Your task to perform on an android device: check the backup settings in the google photos Image 0: 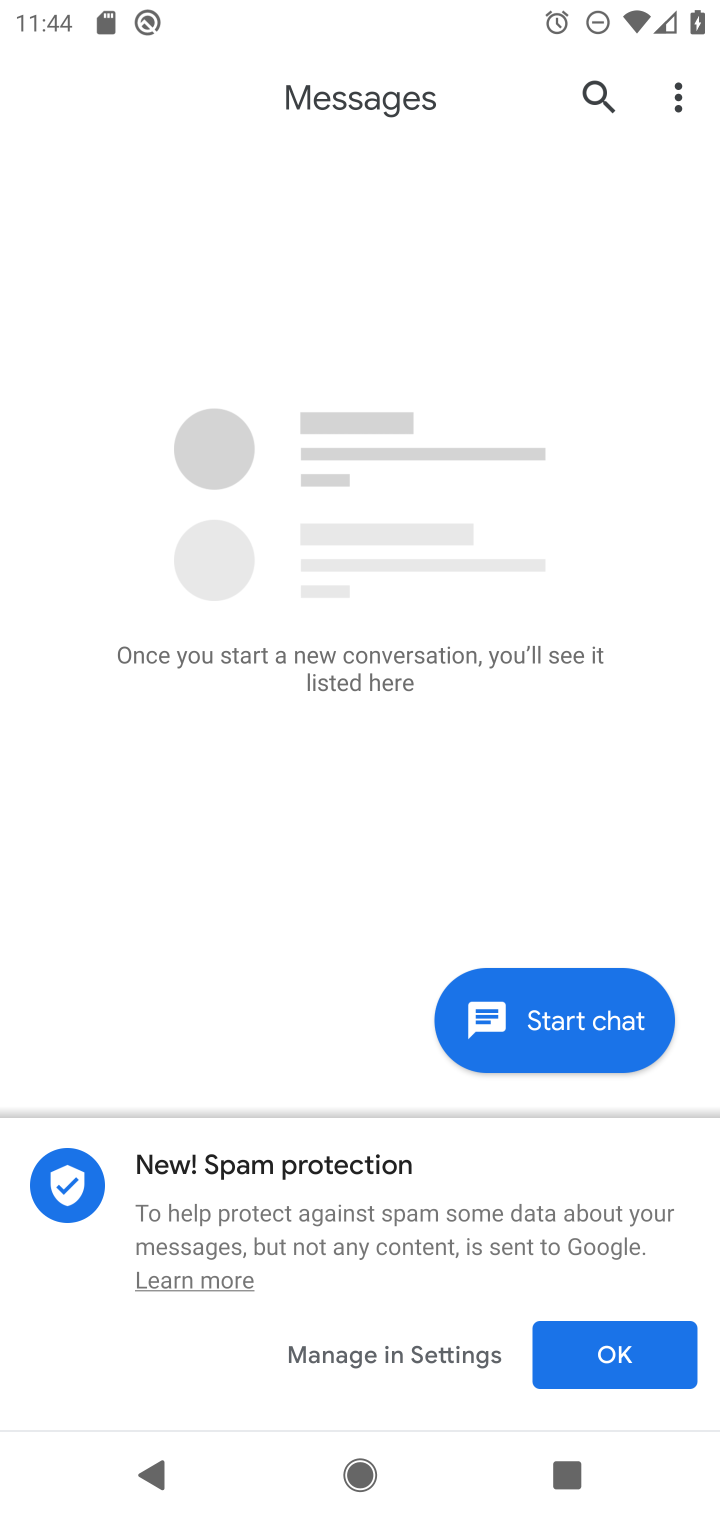
Step 0: press home button
Your task to perform on an android device: check the backup settings in the google photos Image 1: 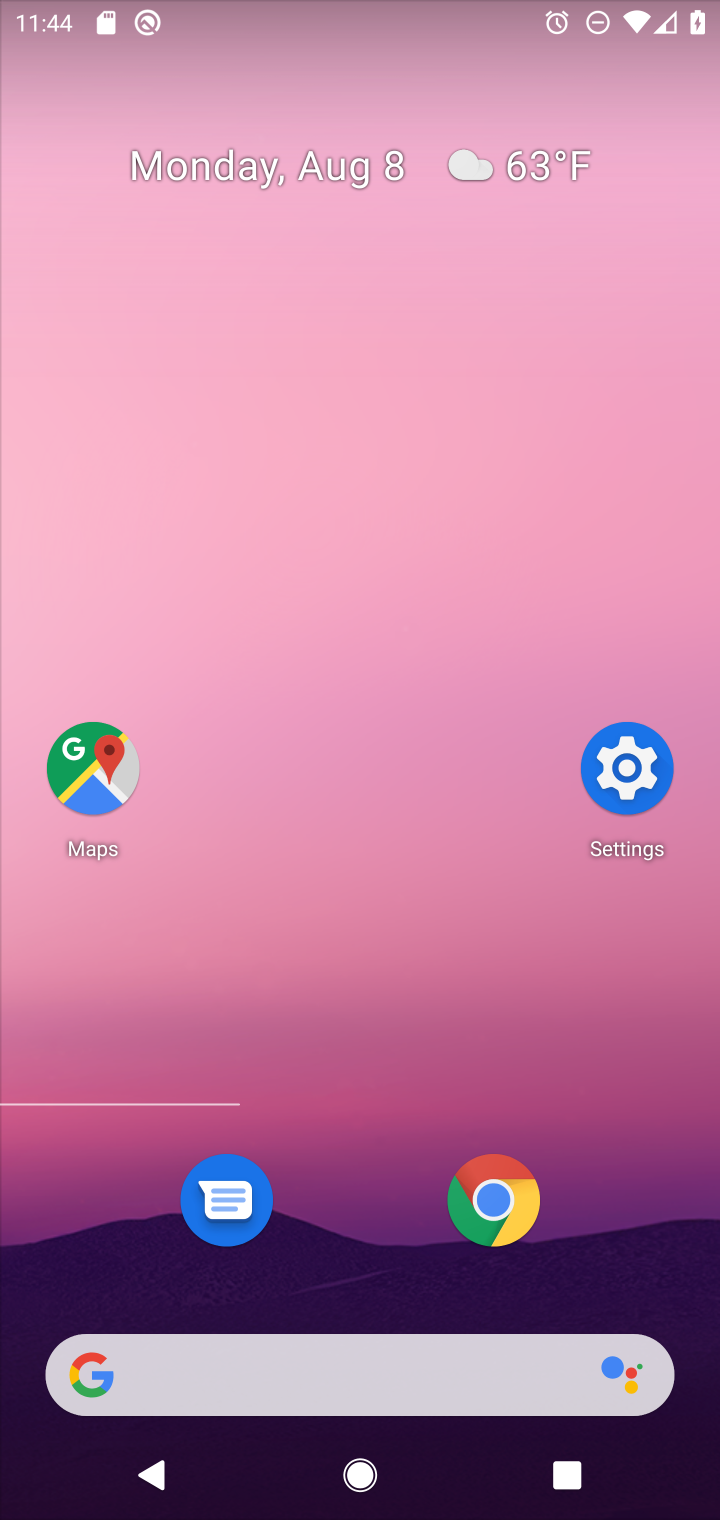
Step 1: drag from (391, 1368) to (624, 82)
Your task to perform on an android device: check the backup settings in the google photos Image 2: 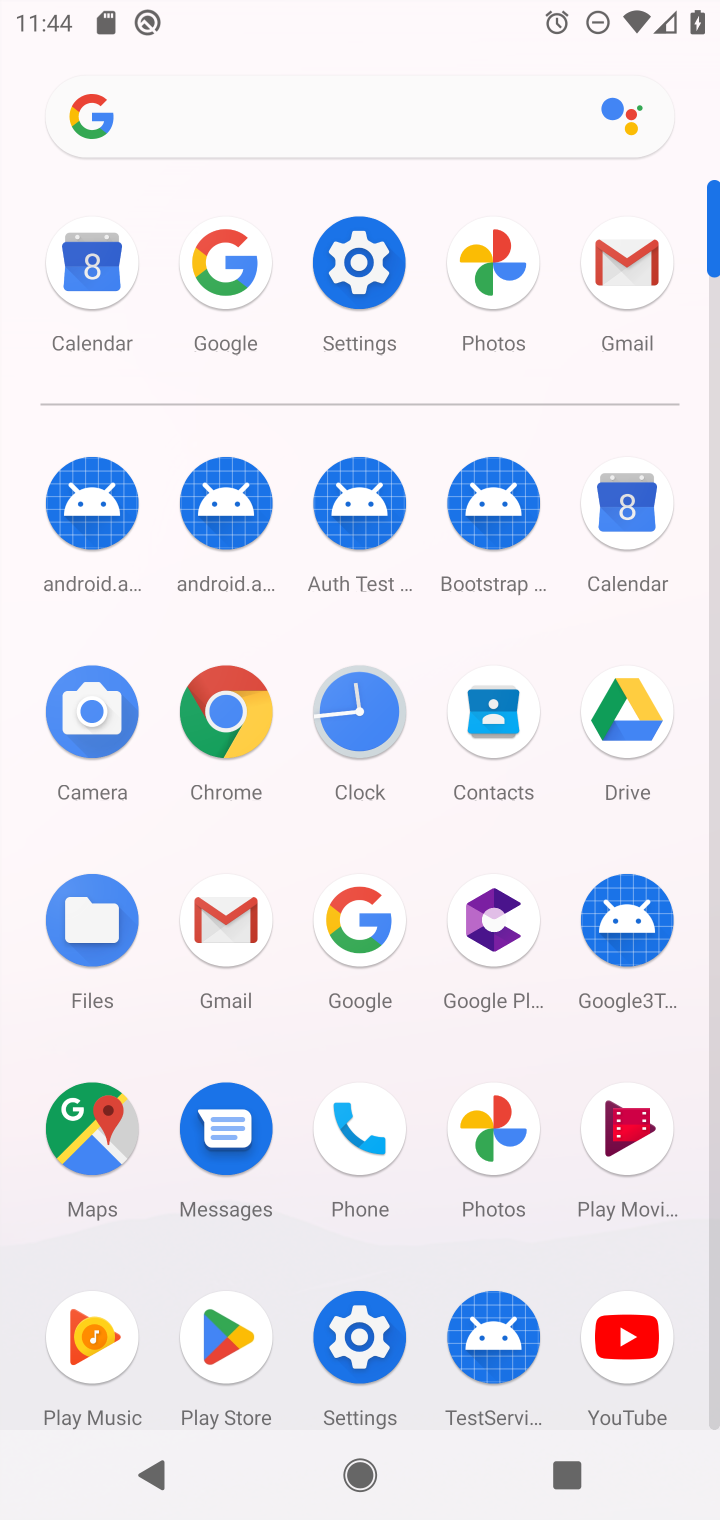
Step 2: click (483, 1136)
Your task to perform on an android device: check the backup settings in the google photos Image 3: 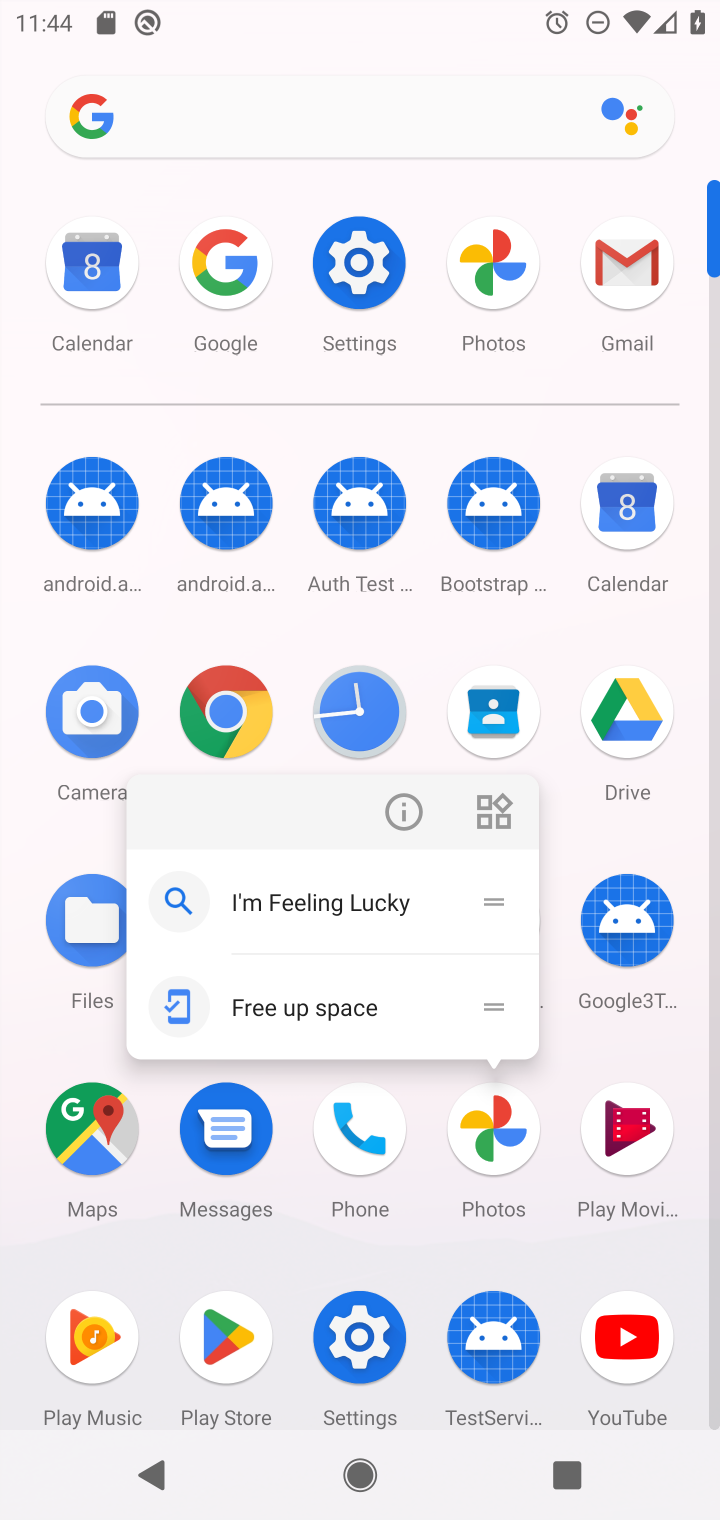
Step 3: click (483, 1136)
Your task to perform on an android device: check the backup settings in the google photos Image 4: 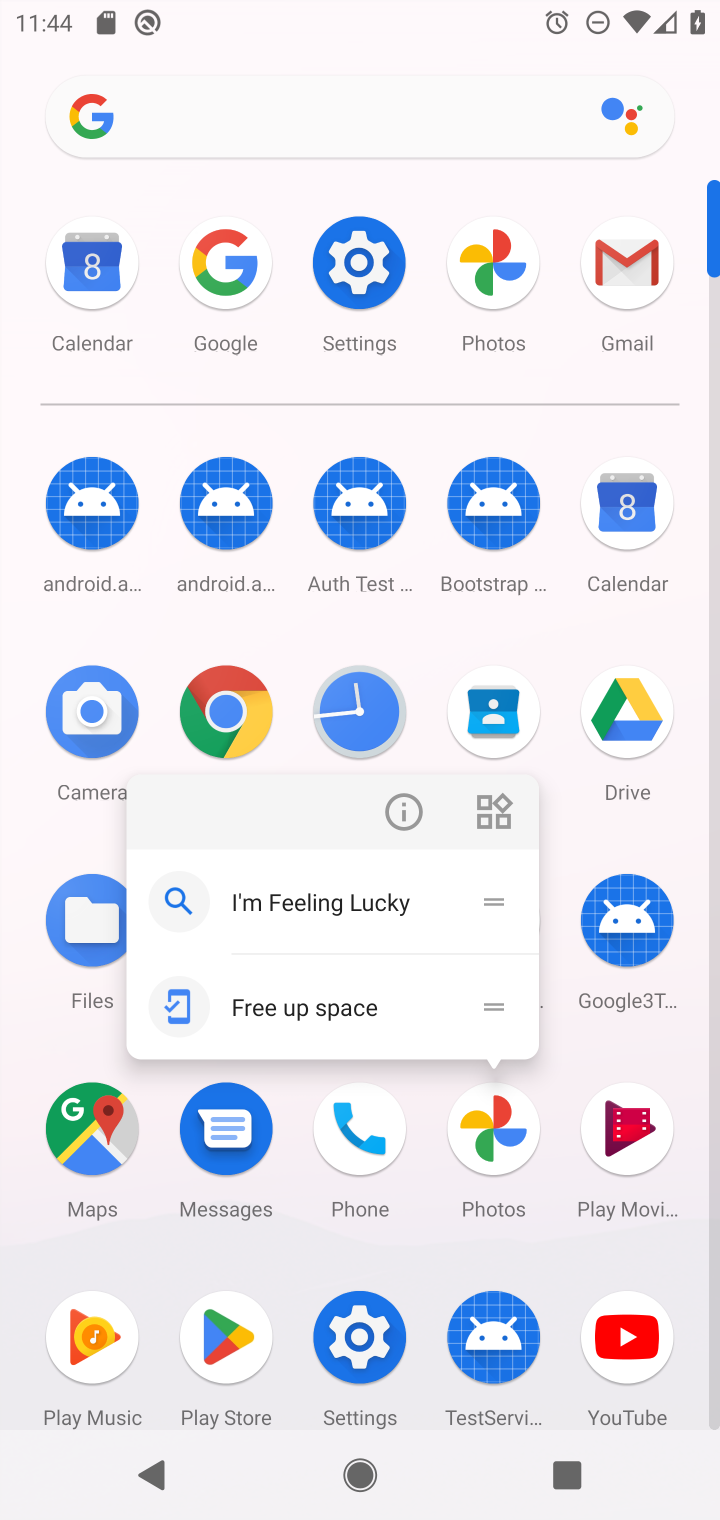
Step 4: click (483, 1134)
Your task to perform on an android device: check the backup settings in the google photos Image 5: 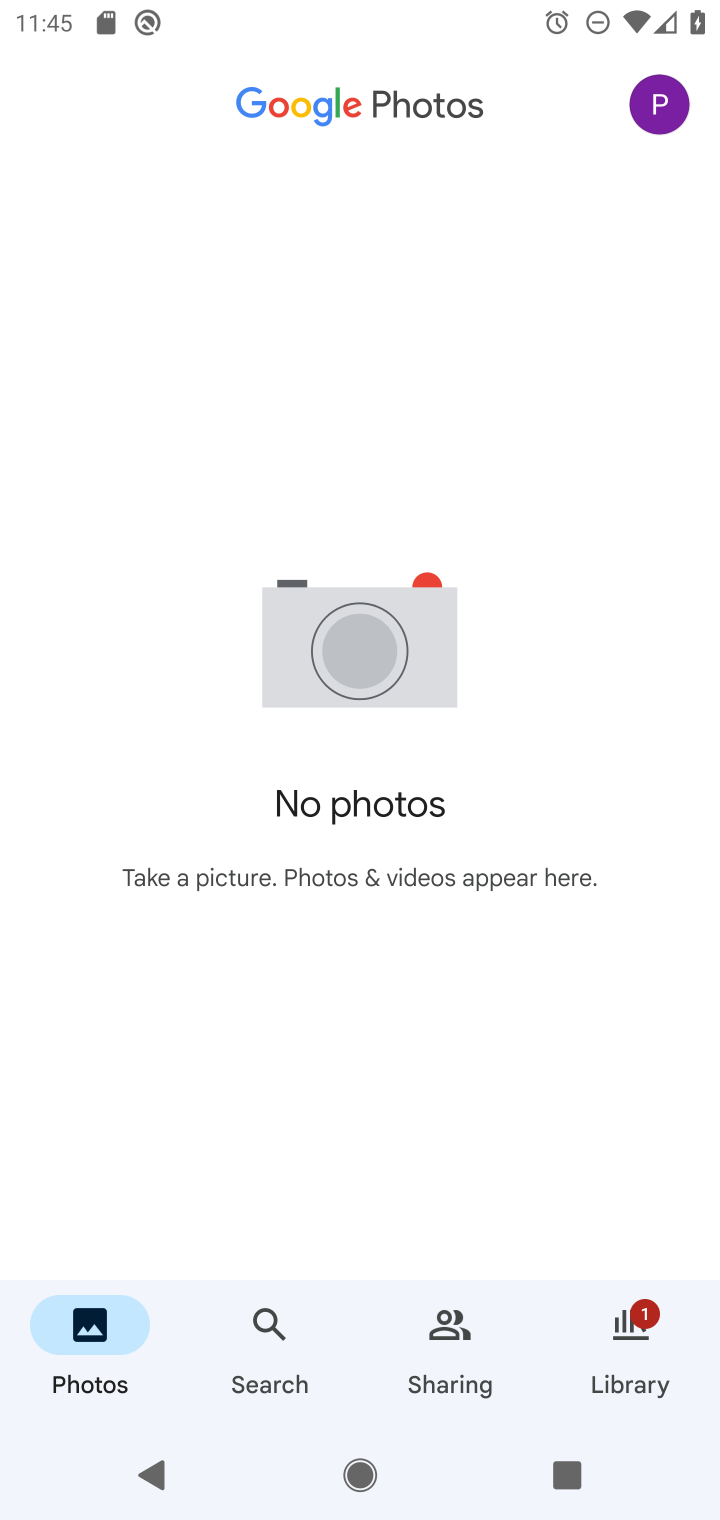
Step 5: click (676, 108)
Your task to perform on an android device: check the backup settings in the google photos Image 6: 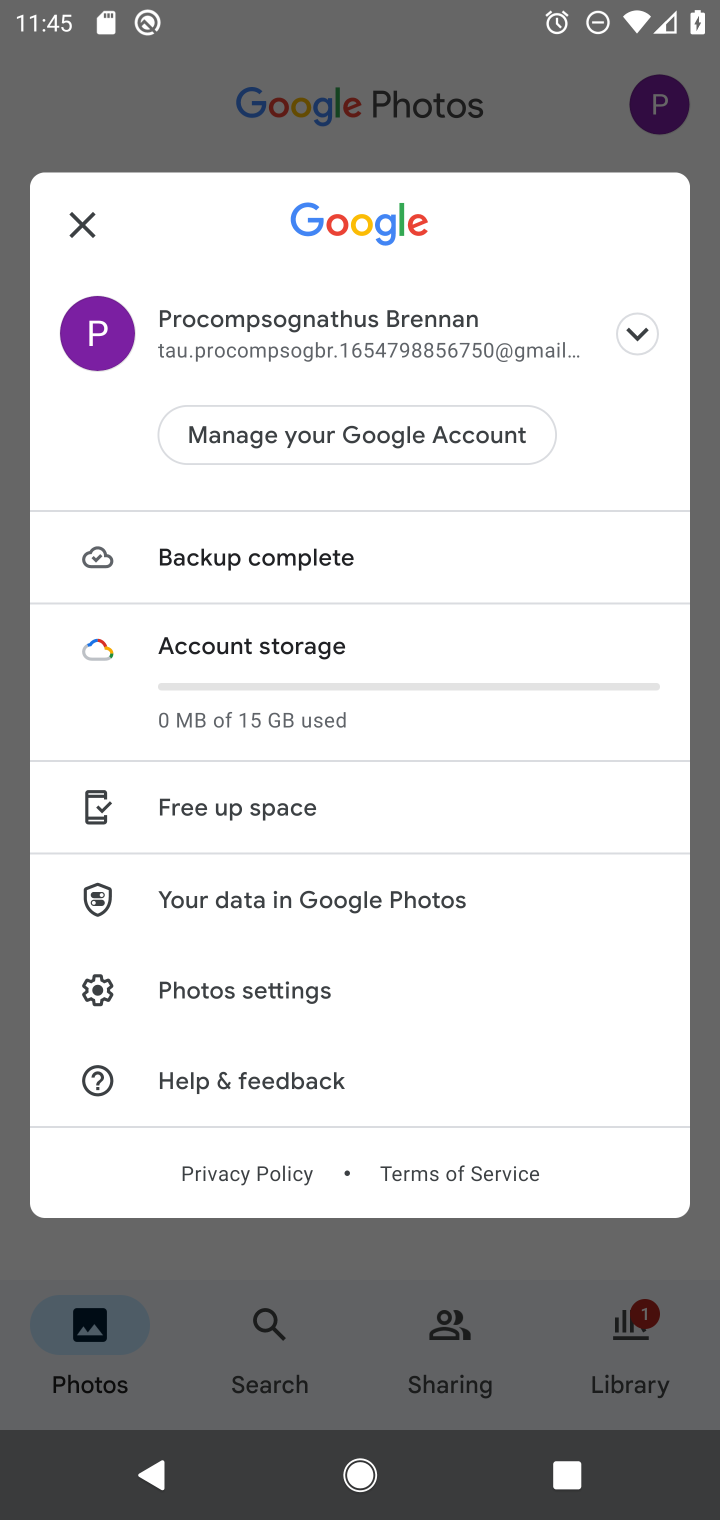
Step 6: click (138, 974)
Your task to perform on an android device: check the backup settings in the google photos Image 7: 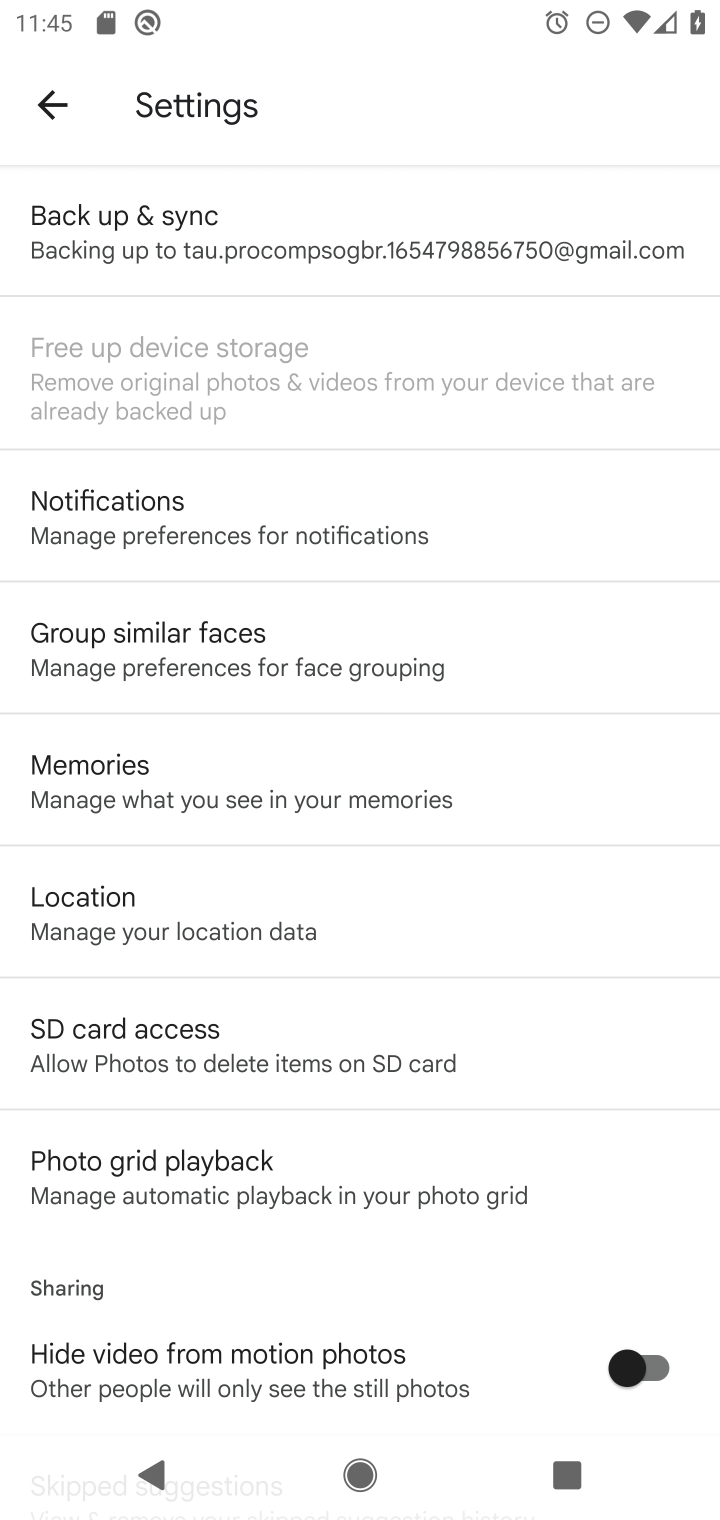
Step 7: click (409, 271)
Your task to perform on an android device: check the backup settings in the google photos Image 8: 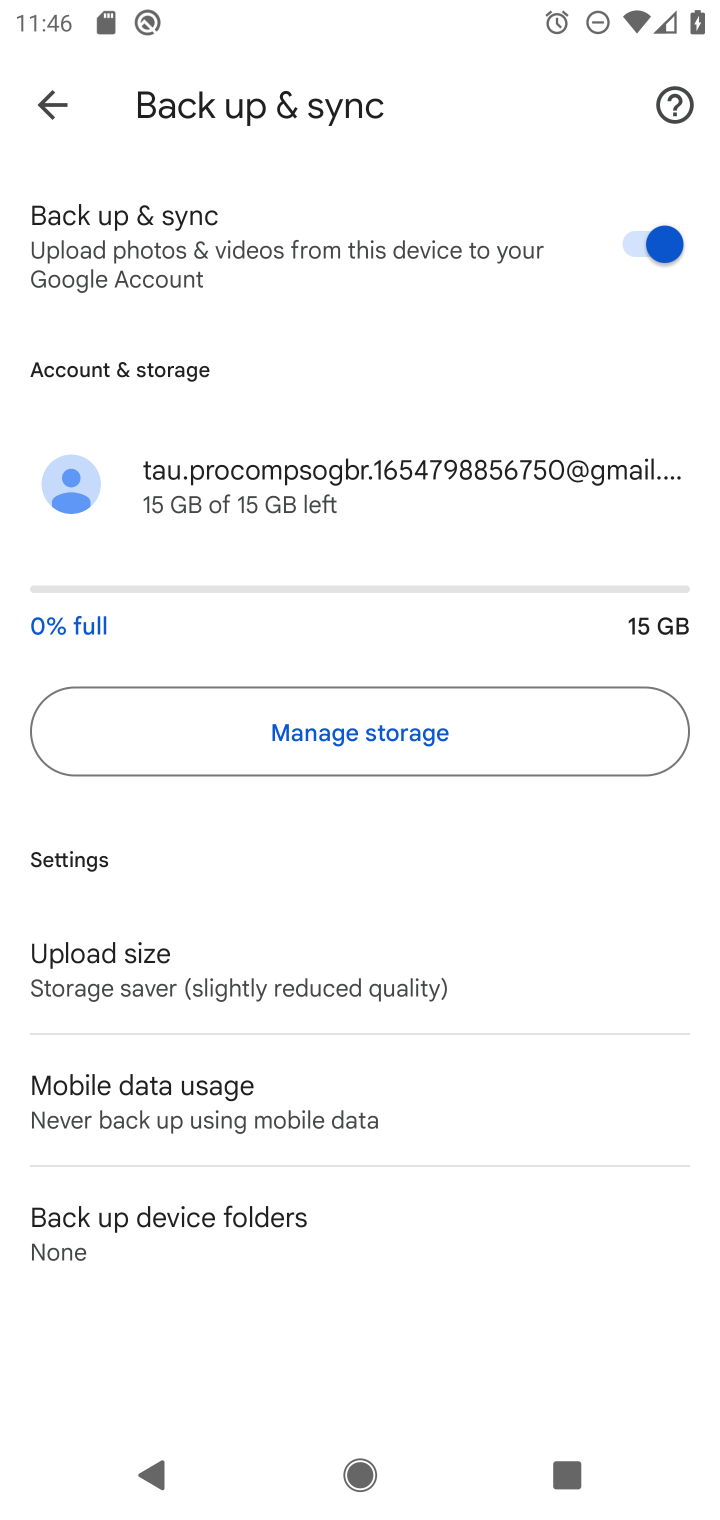
Step 8: task complete